Your task to perform on an android device: move an email to a new category in the gmail app Image 0: 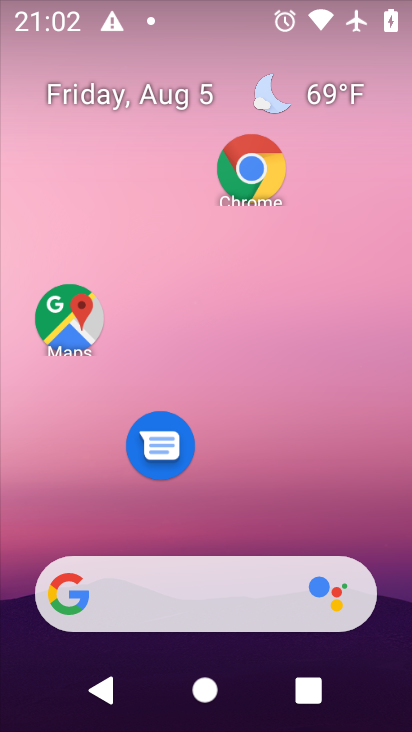
Step 0: drag from (201, 516) to (168, 76)
Your task to perform on an android device: move an email to a new category in the gmail app Image 1: 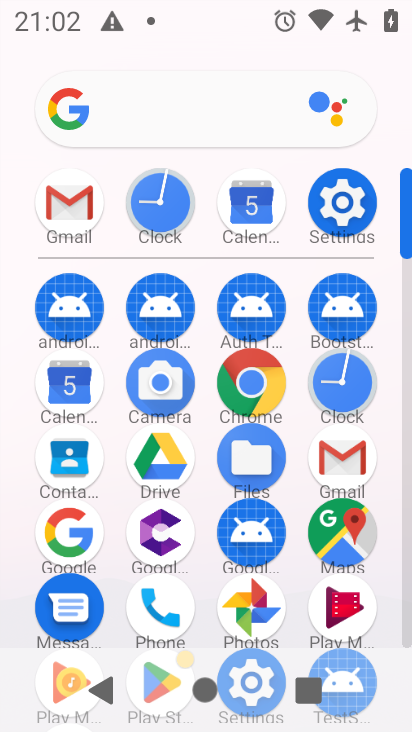
Step 1: click (58, 215)
Your task to perform on an android device: move an email to a new category in the gmail app Image 2: 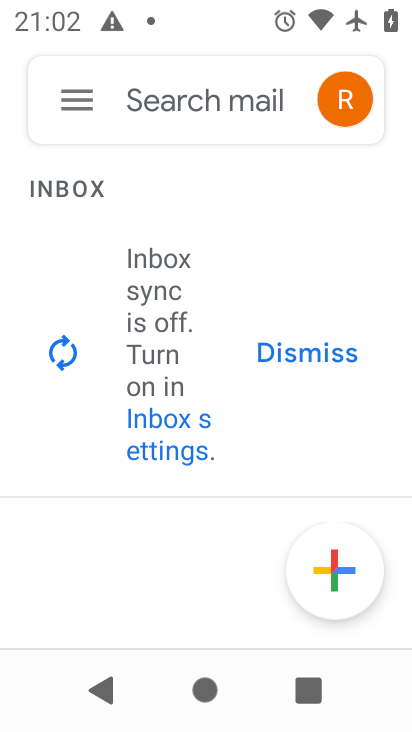
Step 2: click (76, 117)
Your task to perform on an android device: move an email to a new category in the gmail app Image 3: 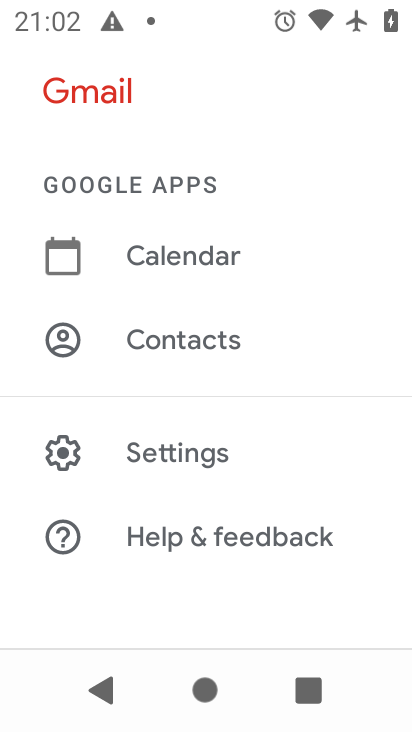
Step 3: task complete